Your task to perform on an android device: Go to network settings Image 0: 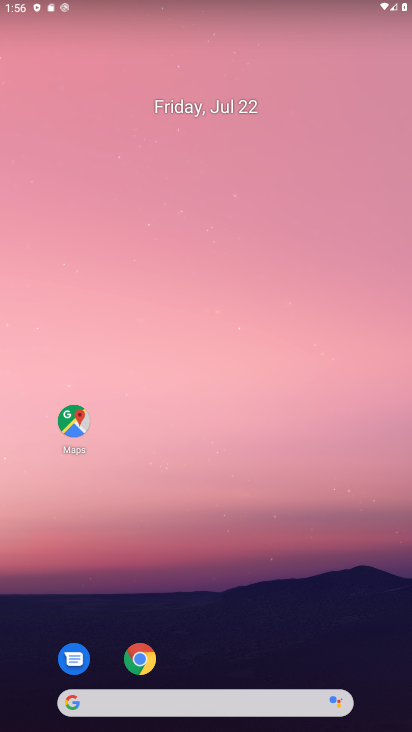
Step 0: drag from (306, 624) to (315, 49)
Your task to perform on an android device: Go to network settings Image 1: 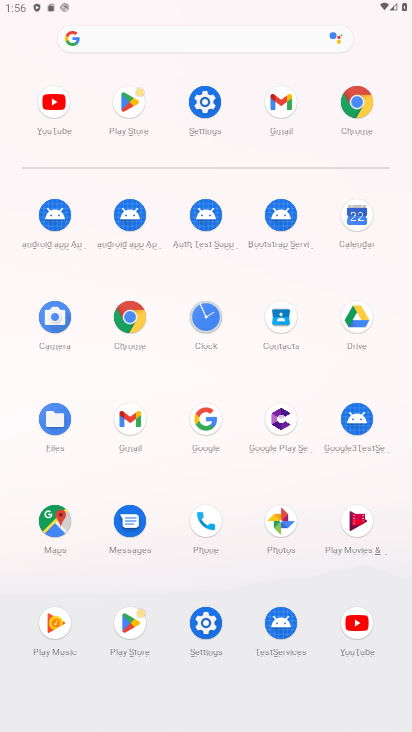
Step 1: click (222, 646)
Your task to perform on an android device: Go to network settings Image 2: 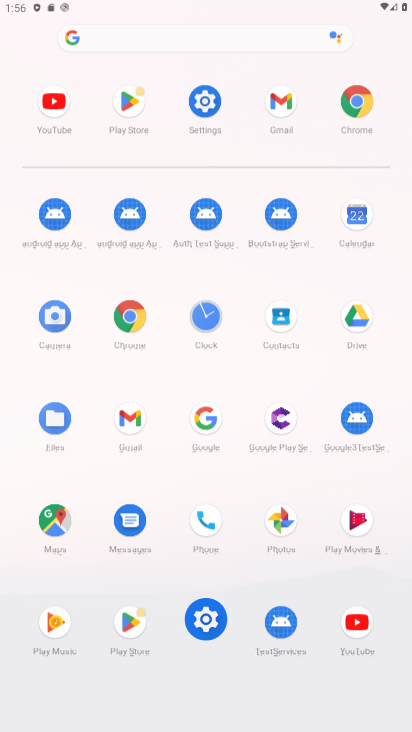
Step 2: task complete